Your task to perform on an android device: What's the news in Ecuador? Image 0: 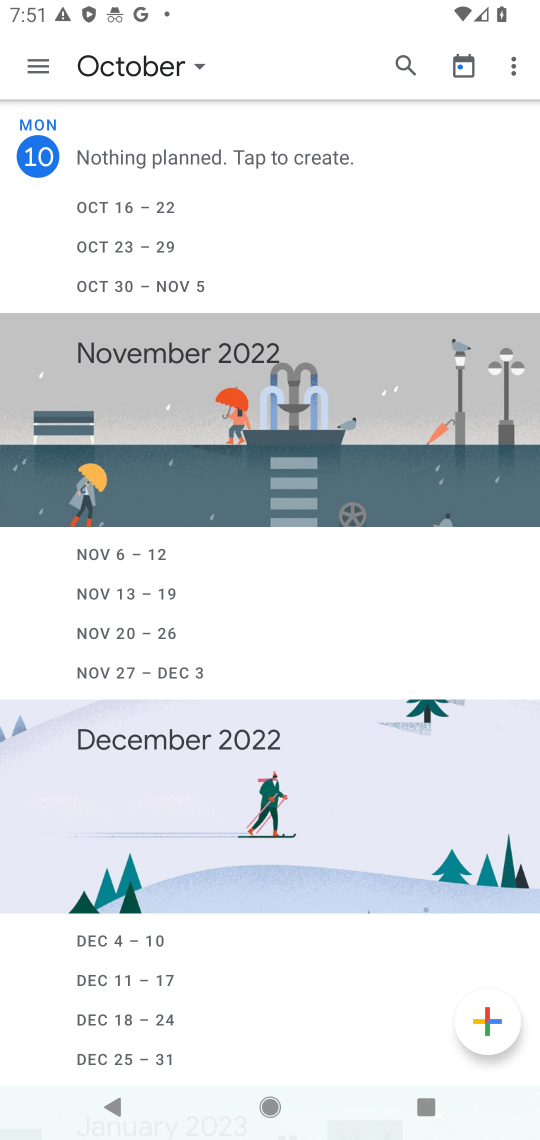
Step 0: press home button
Your task to perform on an android device: What's the news in Ecuador? Image 1: 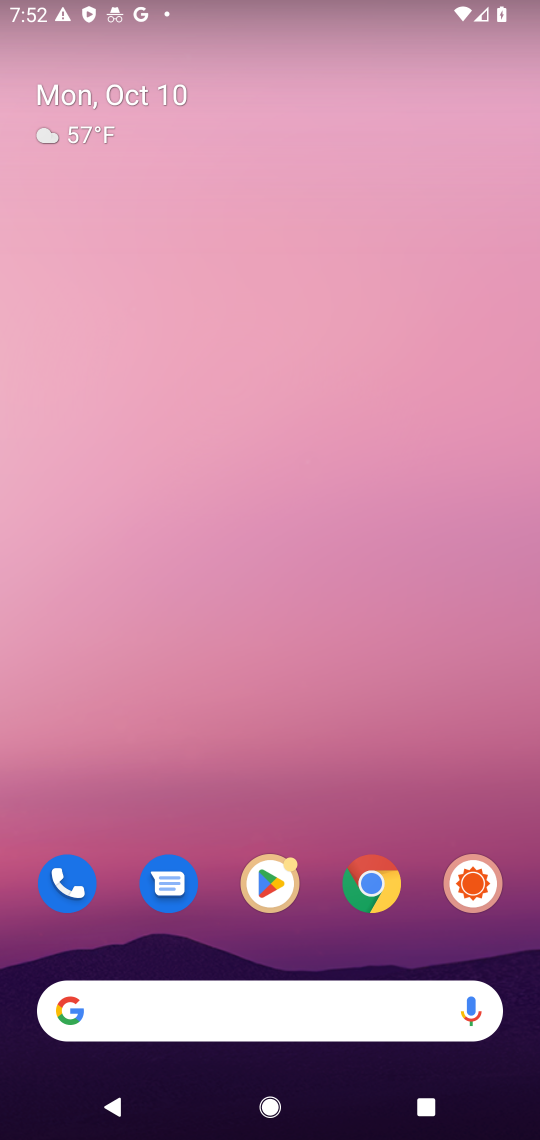
Step 1: drag from (310, 985) to (298, 37)
Your task to perform on an android device: What's the news in Ecuador? Image 2: 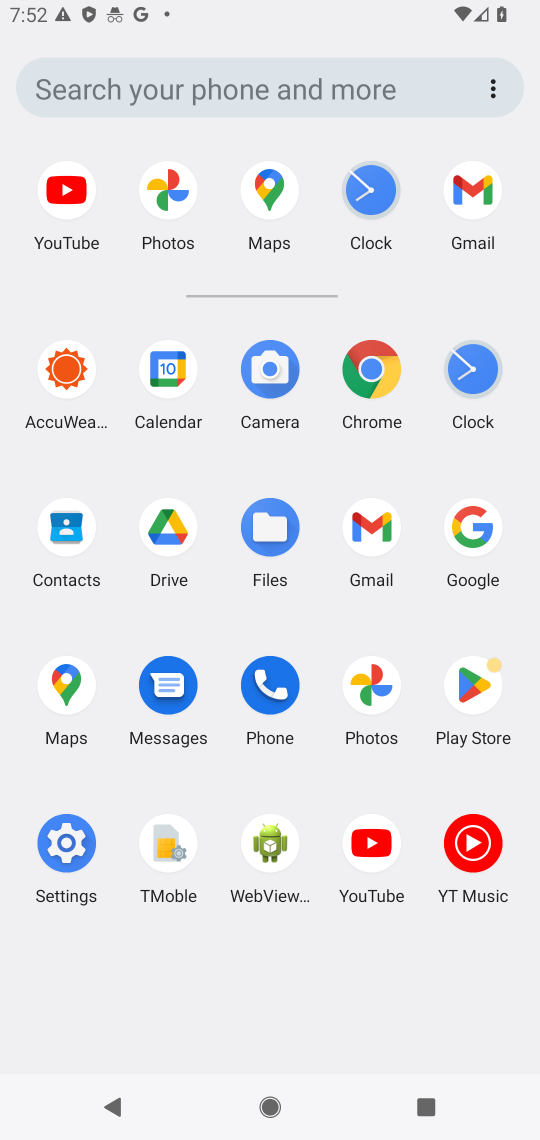
Step 2: click (485, 525)
Your task to perform on an android device: What's the news in Ecuador? Image 3: 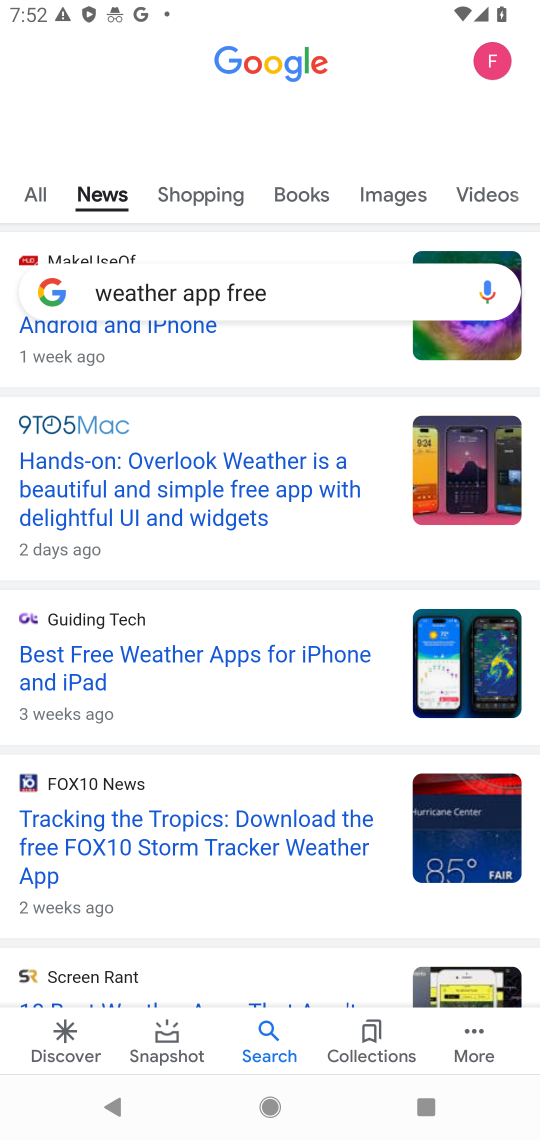
Step 3: click (379, 289)
Your task to perform on an android device: What's the news in Ecuador? Image 4: 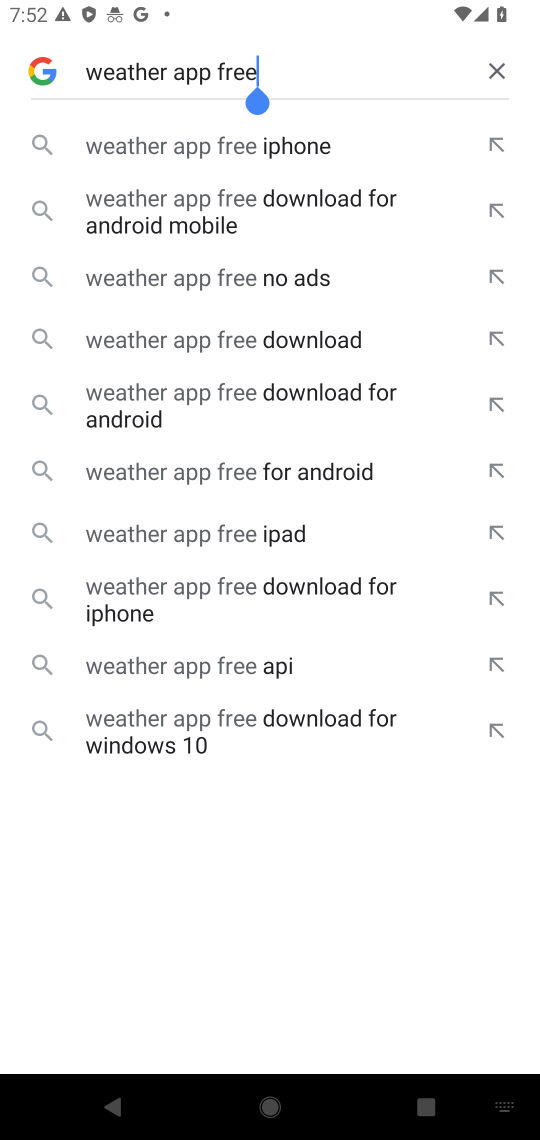
Step 4: click (506, 88)
Your task to perform on an android device: What's the news in Ecuador? Image 5: 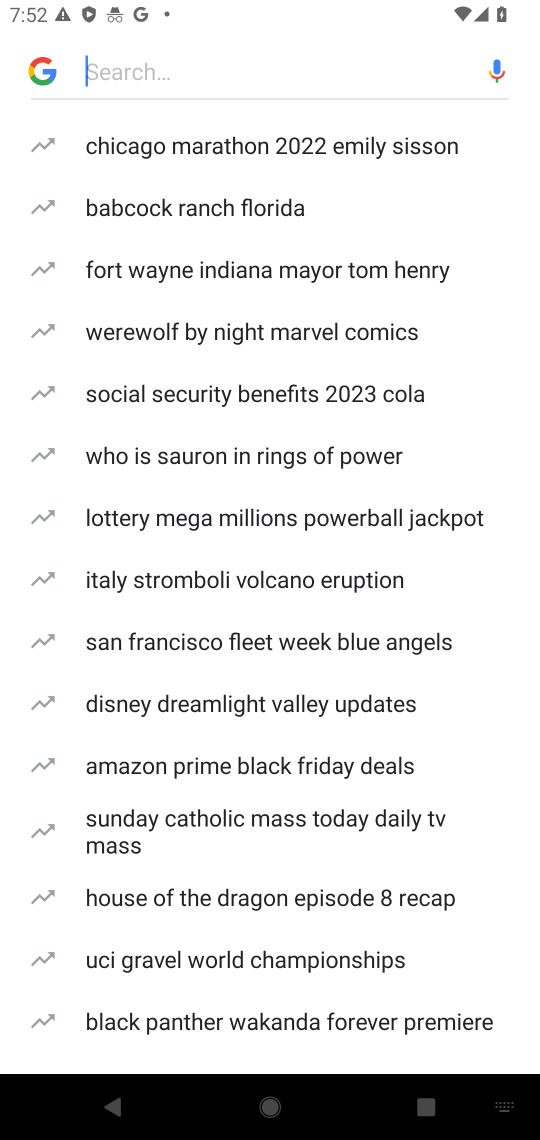
Step 5: type "news in Ecuador"
Your task to perform on an android device: What's the news in Ecuador? Image 6: 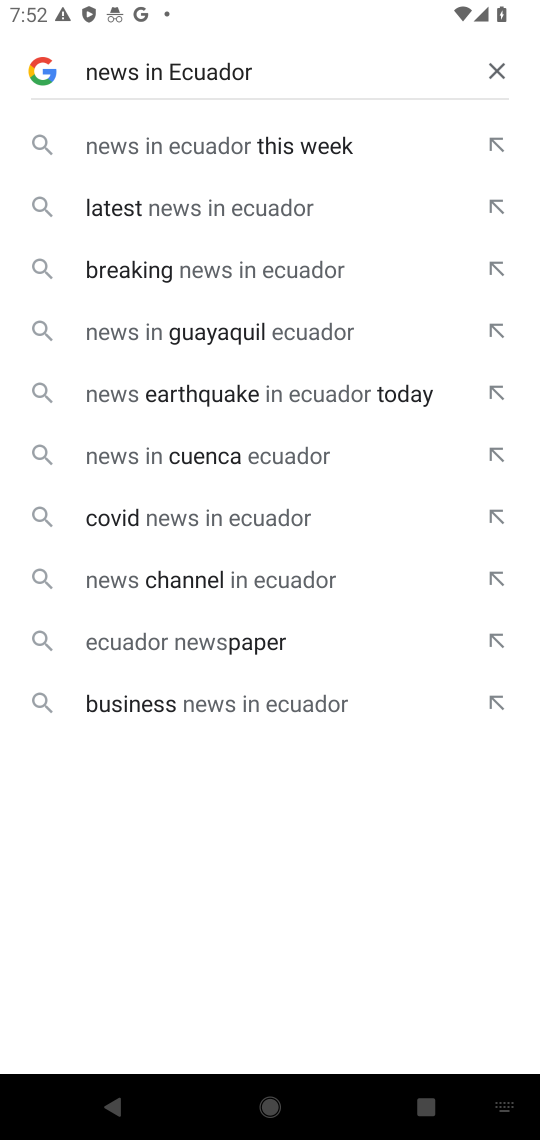
Step 6: click (245, 216)
Your task to perform on an android device: What's the news in Ecuador? Image 7: 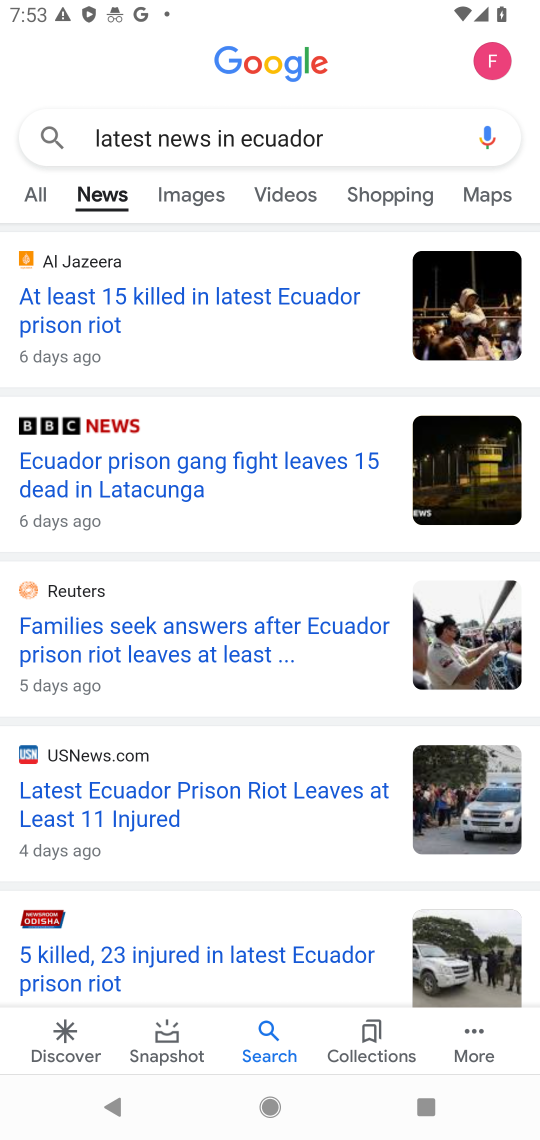
Step 7: task complete